Your task to perform on an android device: Go to Yahoo.com Image 0: 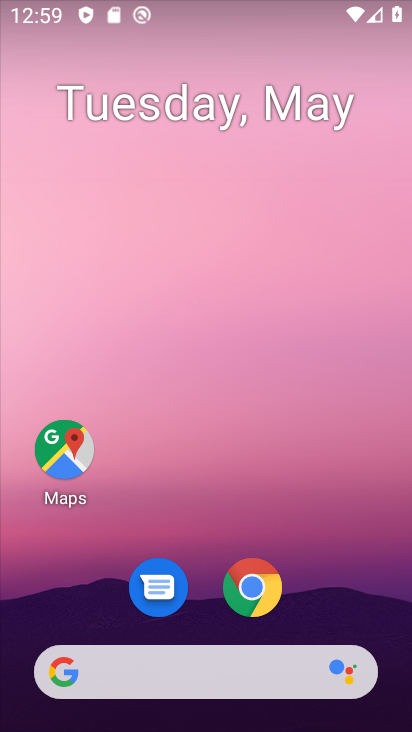
Step 0: click (239, 182)
Your task to perform on an android device: Go to Yahoo.com Image 1: 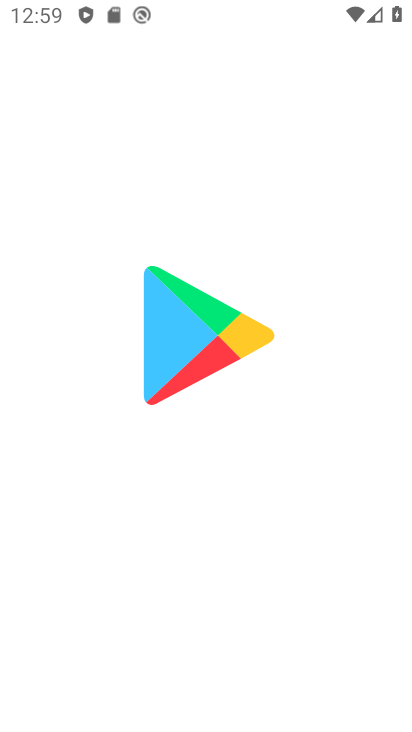
Step 1: drag from (221, 617) to (349, 74)
Your task to perform on an android device: Go to Yahoo.com Image 2: 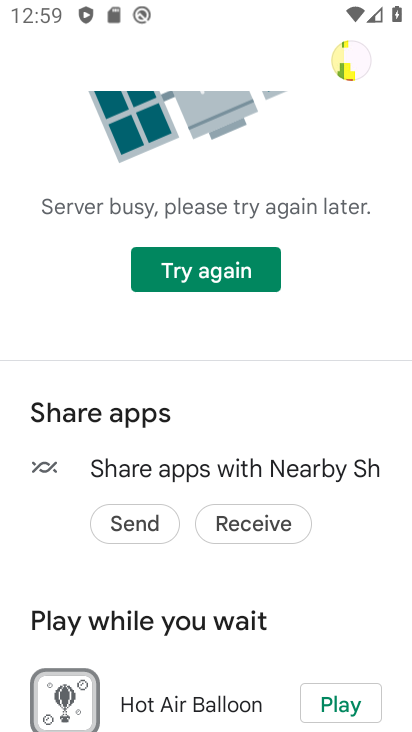
Step 2: press home button
Your task to perform on an android device: Go to Yahoo.com Image 3: 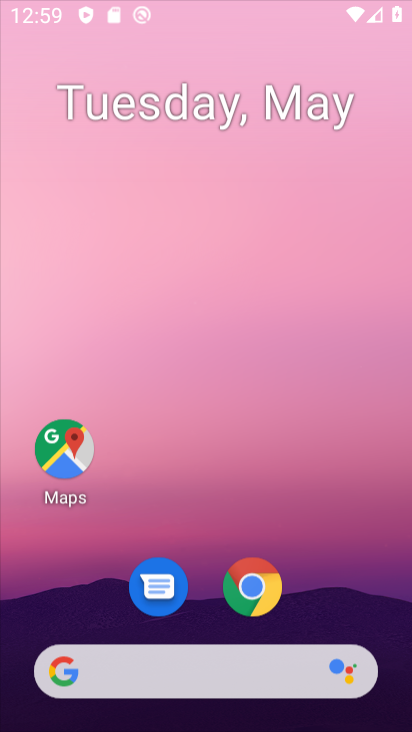
Step 3: drag from (220, 587) to (356, 151)
Your task to perform on an android device: Go to Yahoo.com Image 4: 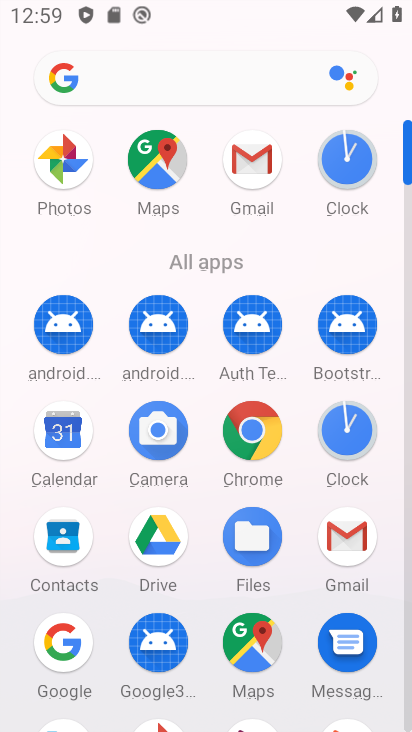
Step 4: click (377, 657)
Your task to perform on an android device: Go to Yahoo.com Image 5: 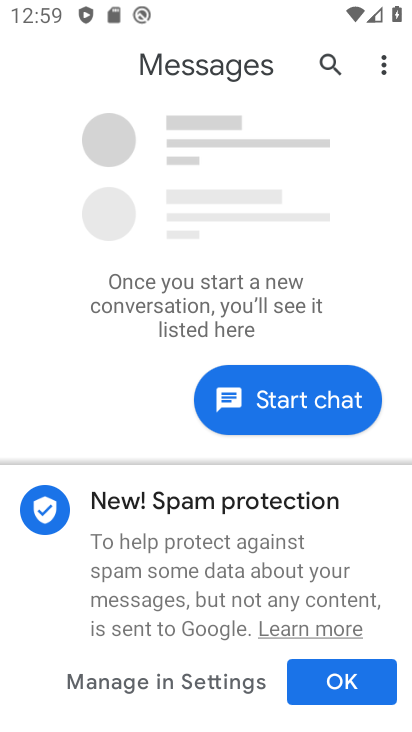
Step 5: press home button
Your task to perform on an android device: Go to Yahoo.com Image 6: 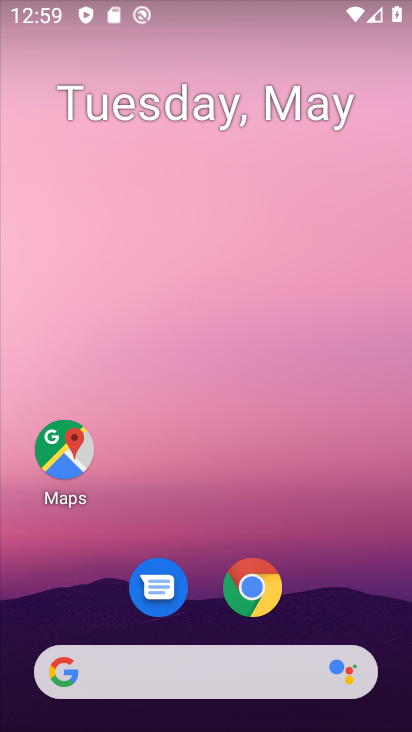
Step 6: drag from (196, 630) to (237, 107)
Your task to perform on an android device: Go to Yahoo.com Image 7: 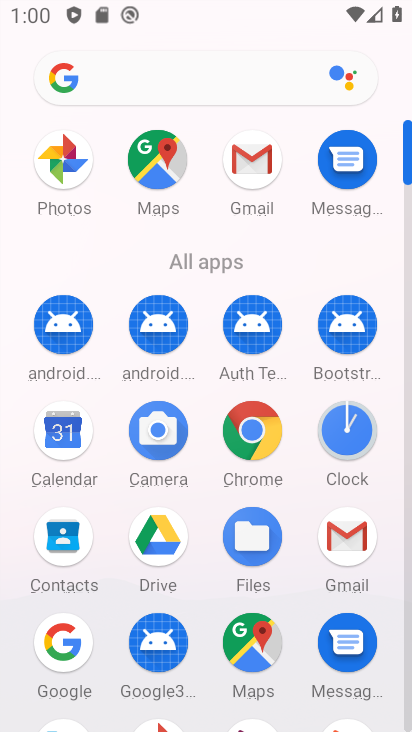
Step 7: type "Yahoo.com"
Your task to perform on an android device: Go to Yahoo.com Image 8: 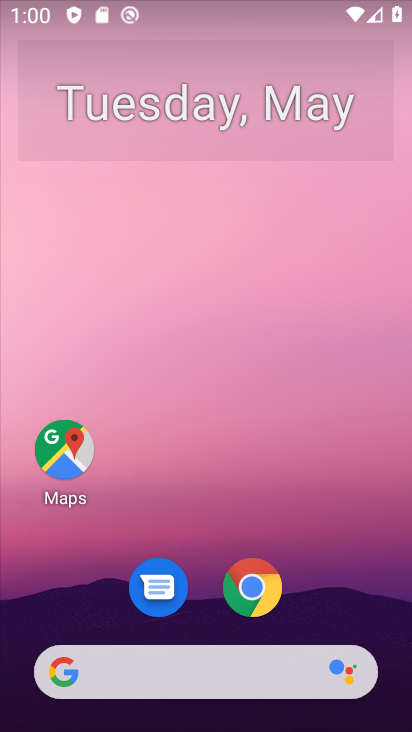
Step 8: type ""
Your task to perform on an android device: Go to Yahoo.com Image 9: 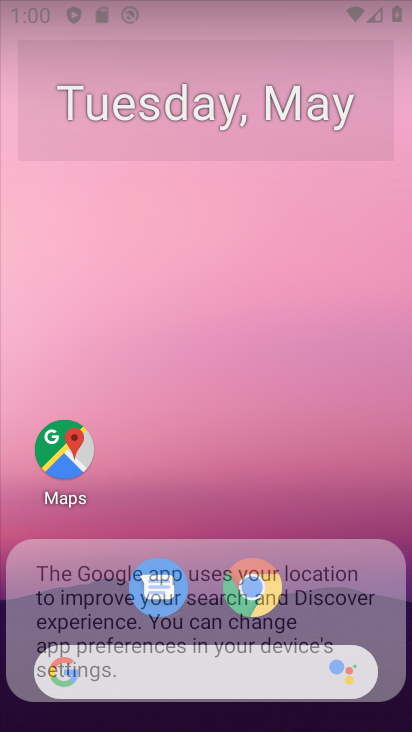
Step 9: click (175, 82)
Your task to perform on an android device: Go to Yahoo.com Image 10: 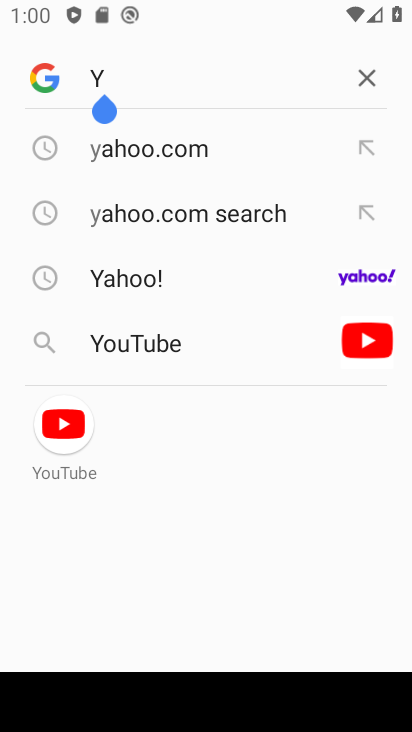
Step 10: click (181, 148)
Your task to perform on an android device: Go to Yahoo.com Image 11: 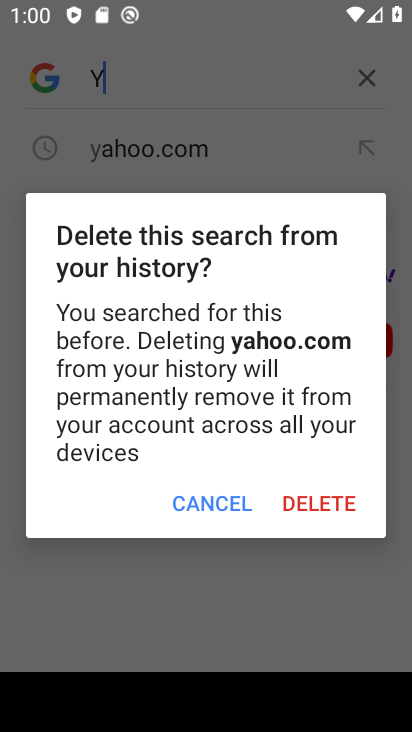
Step 11: click (226, 486)
Your task to perform on an android device: Go to Yahoo.com Image 12: 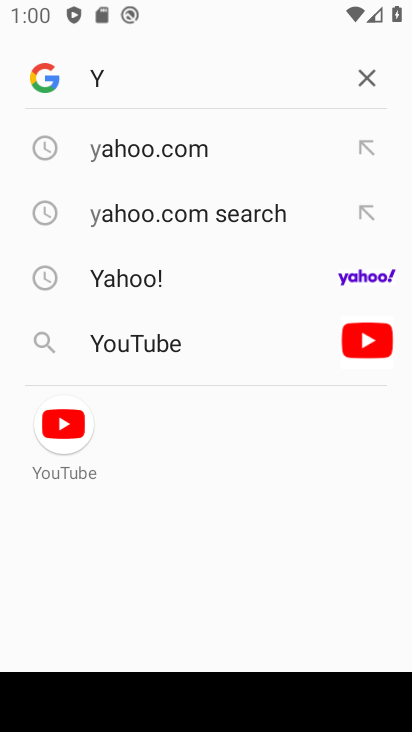
Step 12: click (53, 149)
Your task to perform on an android device: Go to Yahoo.com Image 13: 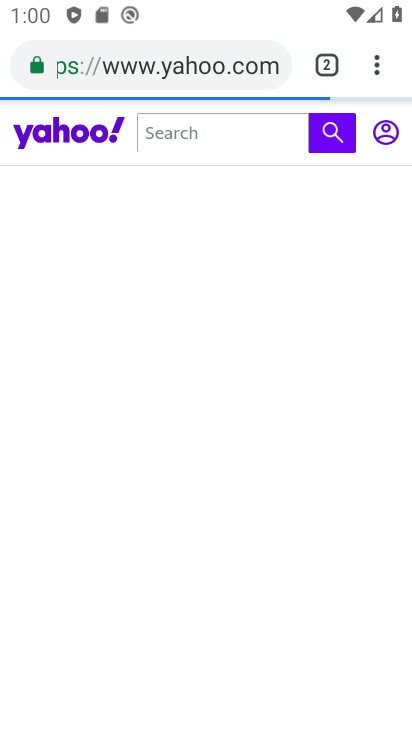
Step 13: task complete